Your task to perform on an android device: open wifi settings Image 0: 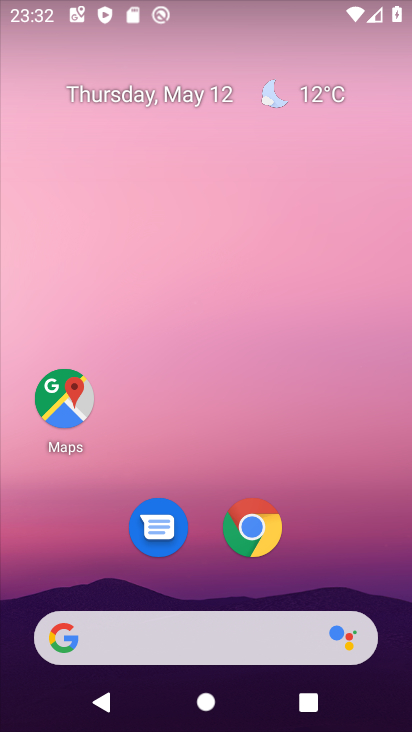
Step 0: drag from (289, 1) to (166, 445)
Your task to perform on an android device: open wifi settings Image 1: 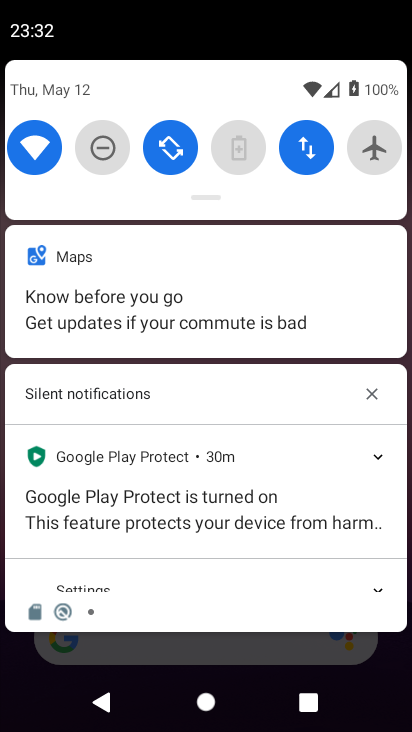
Step 1: click (30, 138)
Your task to perform on an android device: open wifi settings Image 2: 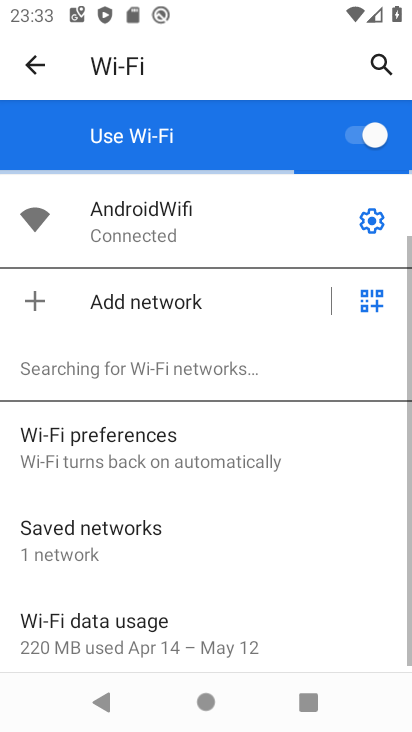
Step 2: click (373, 219)
Your task to perform on an android device: open wifi settings Image 3: 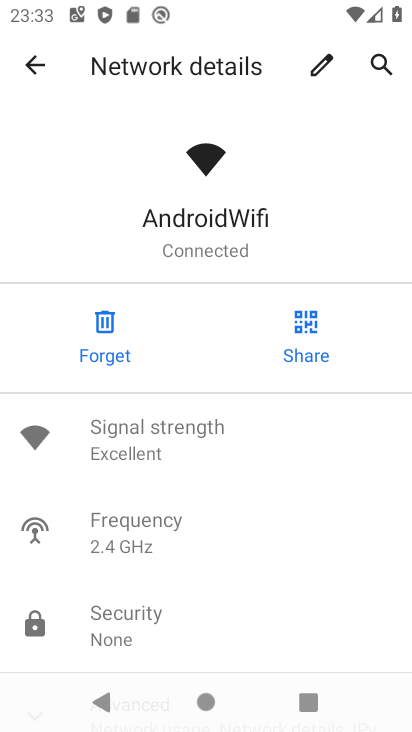
Step 3: task complete